Your task to perform on an android device: change the clock display to show seconds Image 0: 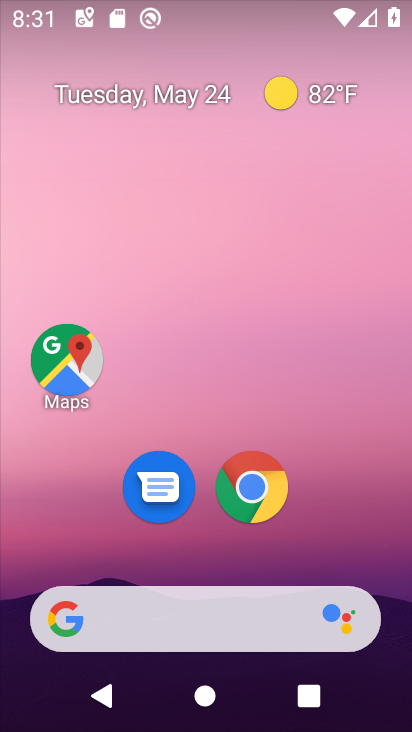
Step 0: drag from (364, 529) to (305, 168)
Your task to perform on an android device: change the clock display to show seconds Image 1: 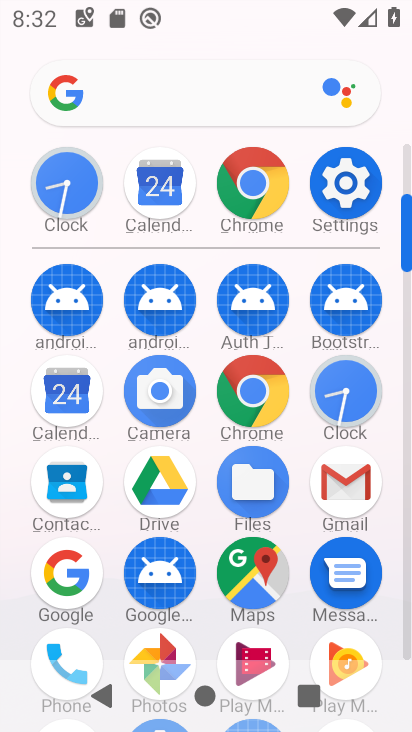
Step 1: click (332, 398)
Your task to perform on an android device: change the clock display to show seconds Image 2: 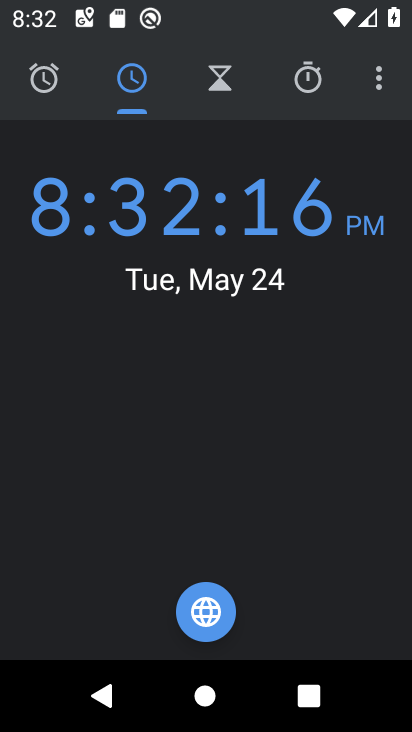
Step 2: click (370, 88)
Your task to perform on an android device: change the clock display to show seconds Image 3: 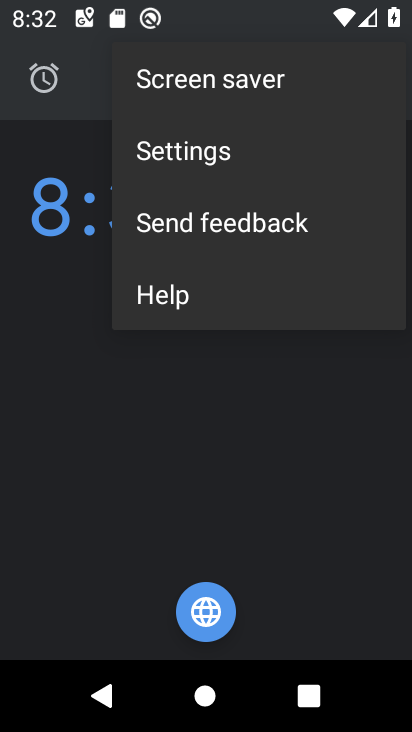
Step 3: click (237, 151)
Your task to perform on an android device: change the clock display to show seconds Image 4: 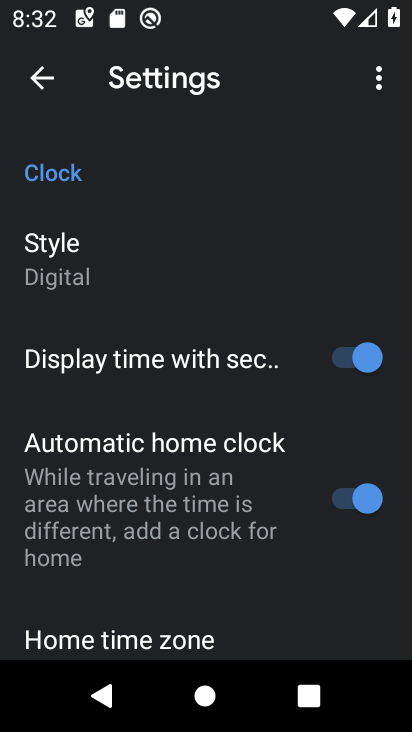
Step 4: task complete